Your task to perform on an android device: turn smart compose on in the gmail app Image 0: 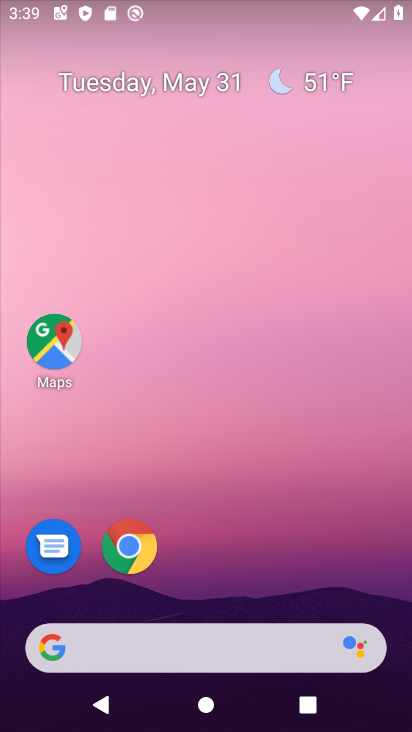
Step 0: drag from (212, 587) to (265, 216)
Your task to perform on an android device: turn smart compose on in the gmail app Image 1: 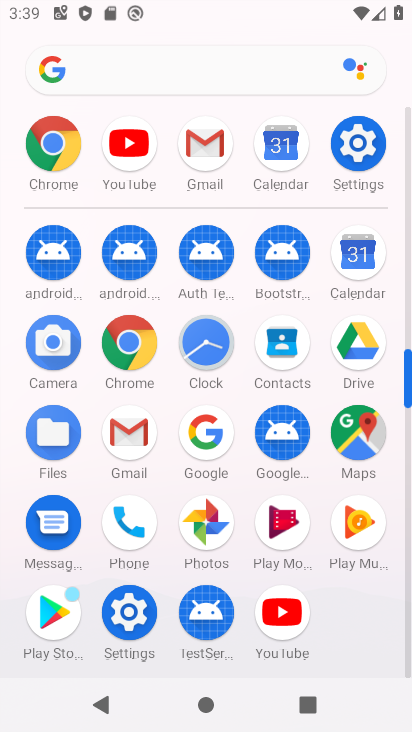
Step 1: click (186, 177)
Your task to perform on an android device: turn smart compose on in the gmail app Image 2: 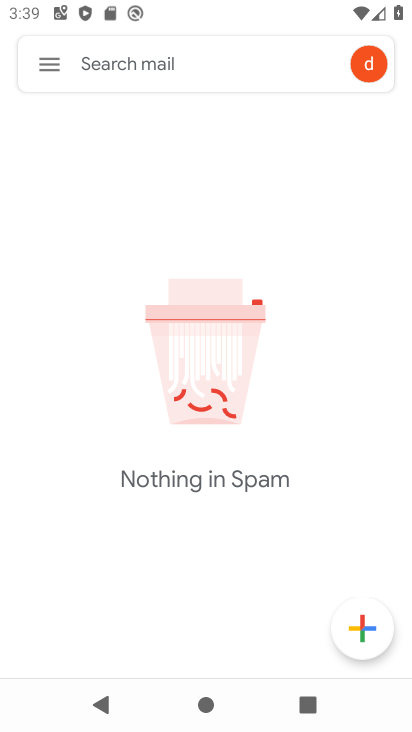
Step 2: click (45, 63)
Your task to perform on an android device: turn smart compose on in the gmail app Image 3: 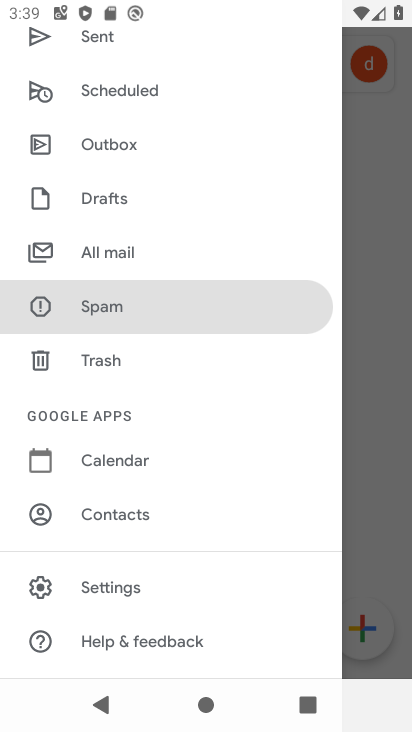
Step 3: click (89, 596)
Your task to perform on an android device: turn smart compose on in the gmail app Image 4: 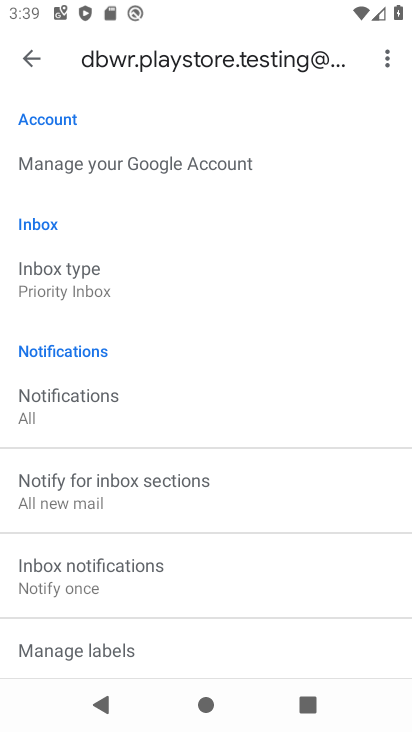
Step 4: drag from (111, 561) to (138, 350)
Your task to perform on an android device: turn smart compose on in the gmail app Image 5: 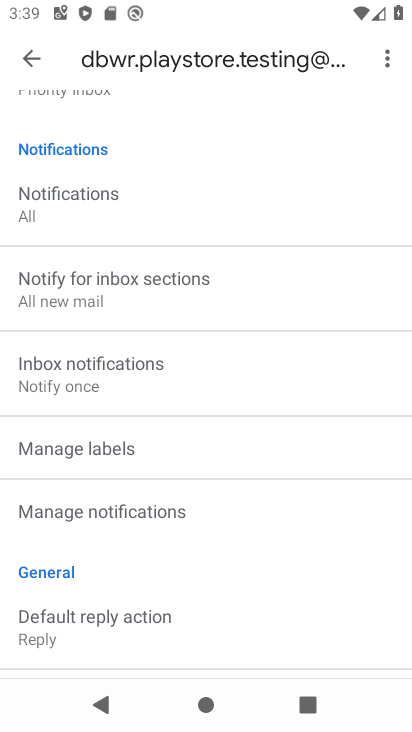
Step 5: drag from (95, 568) to (225, 216)
Your task to perform on an android device: turn smart compose on in the gmail app Image 6: 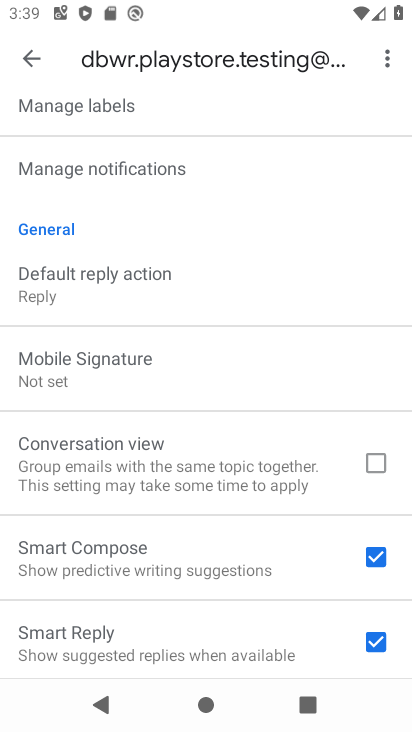
Step 6: click (375, 556)
Your task to perform on an android device: turn smart compose on in the gmail app Image 7: 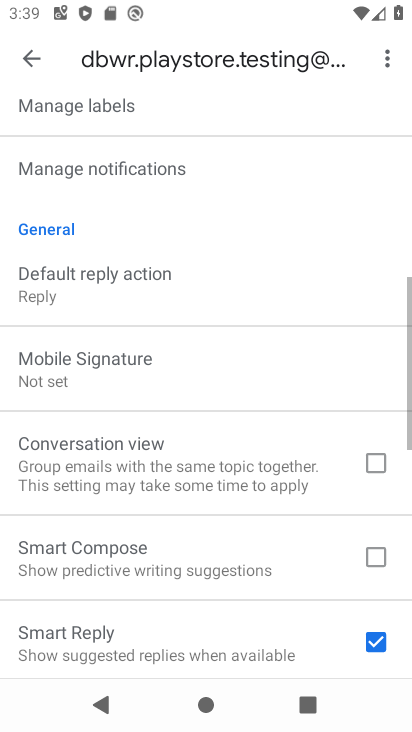
Step 7: click (375, 556)
Your task to perform on an android device: turn smart compose on in the gmail app Image 8: 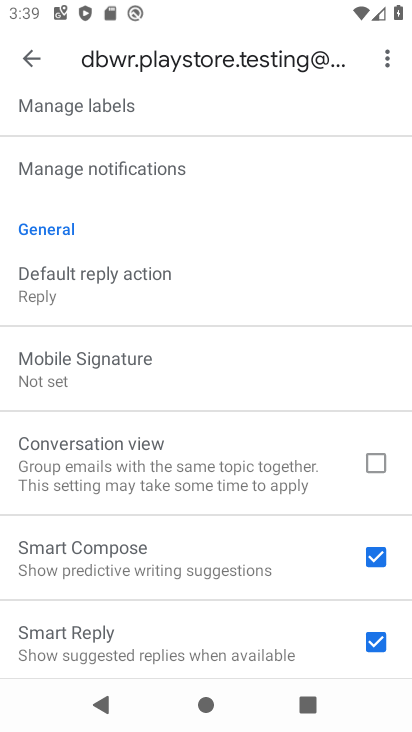
Step 8: task complete